Your task to perform on an android device: Go to Amazon Image 0: 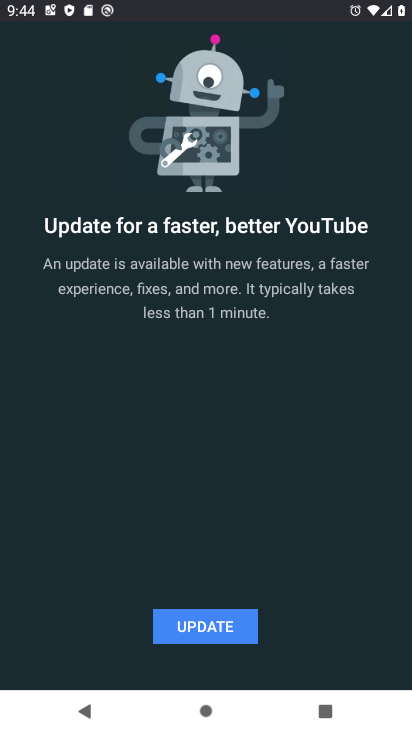
Step 0: press home button
Your task to perform on an android device: Go to Amazon Image 1: 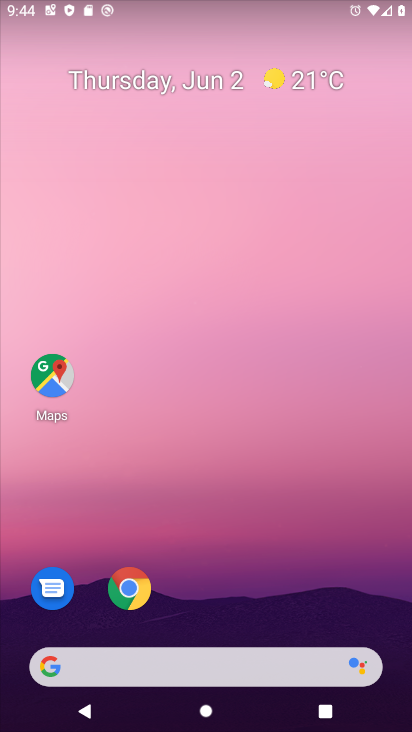
Step 1: click (131, 593)
Your task to perform on an android device: Go to Amazon Image 2: 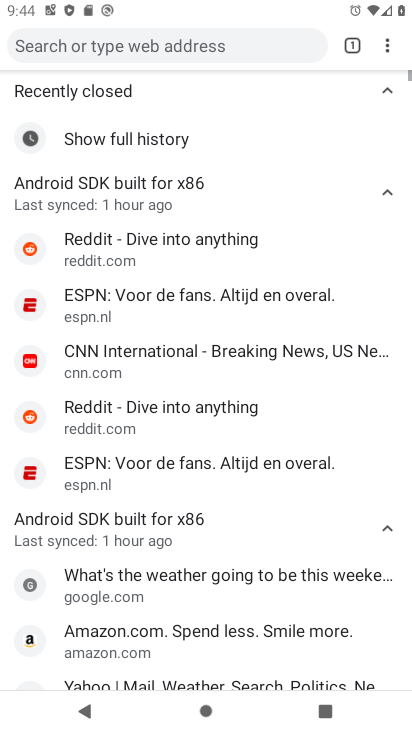
Step 2: click (134, 37)
Your task to perform on an android device: Go to Amazon Image 3: 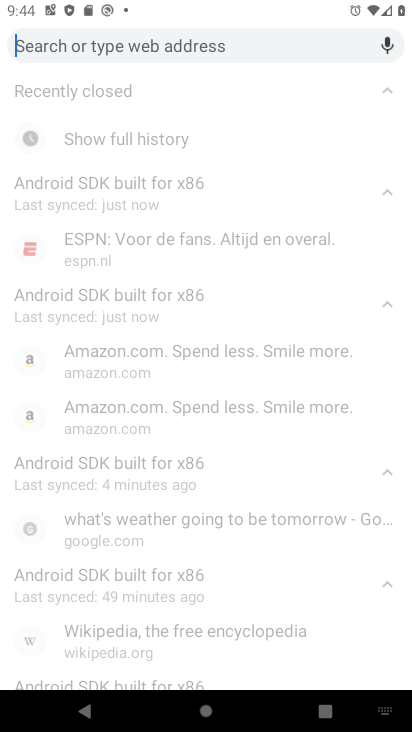
Step 3: type "amazon"
Your task to perform on an android device: Go to Amazon Image 4: 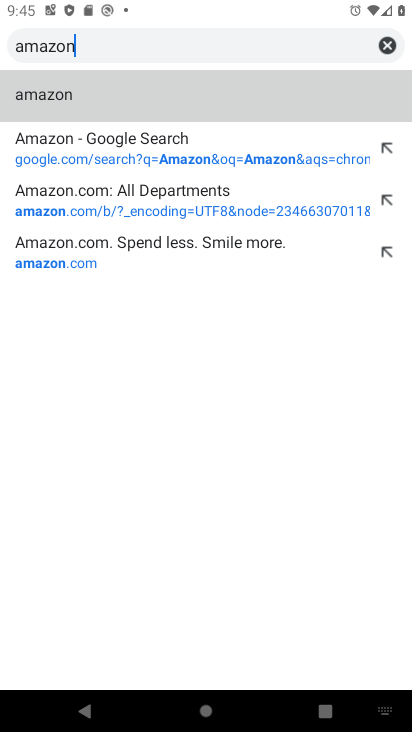
Step 4: click (203, 236)
Your task to perform on an android device: Go to Amazon Image 5: 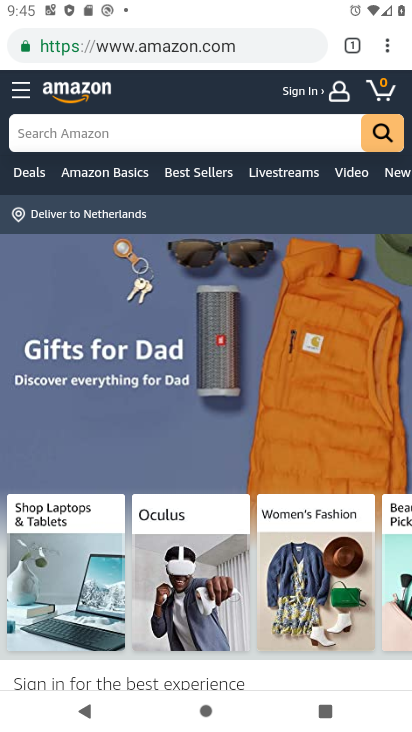
Step 5: click (203, 236)
Your task to perform on an android device: Go to Amazon Image 6: 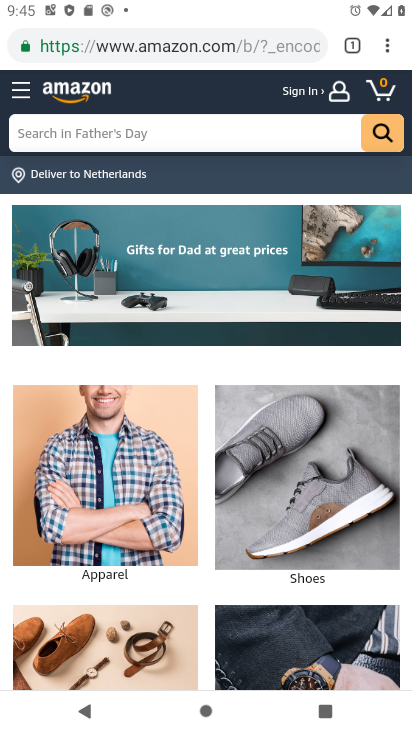
Step 6: task complete